Your task to perform on an android device: Go to Yahoo.com Image 0: 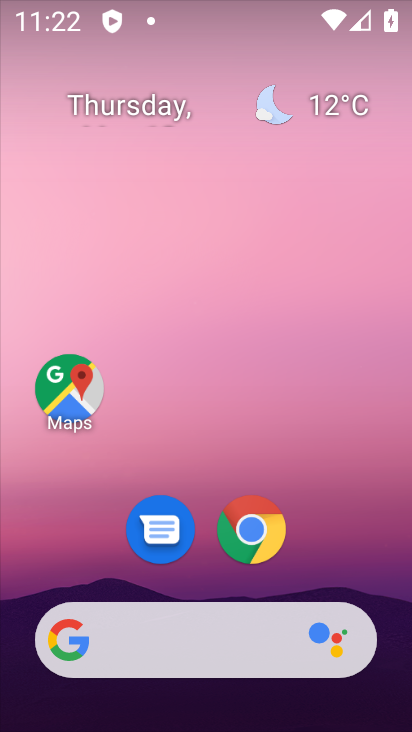
Step 0: drag from (305, 483) to (297, 173)
Your task to perform on an android device: Go to Yahoo.com Image 1: 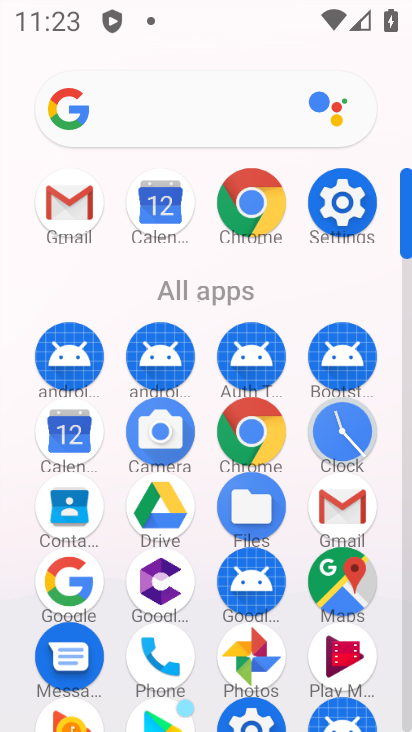
Step 1: drag from (294, 564) to (296, 223)
Your task to perform on an android device: Go to Yahoo.com Image 2: 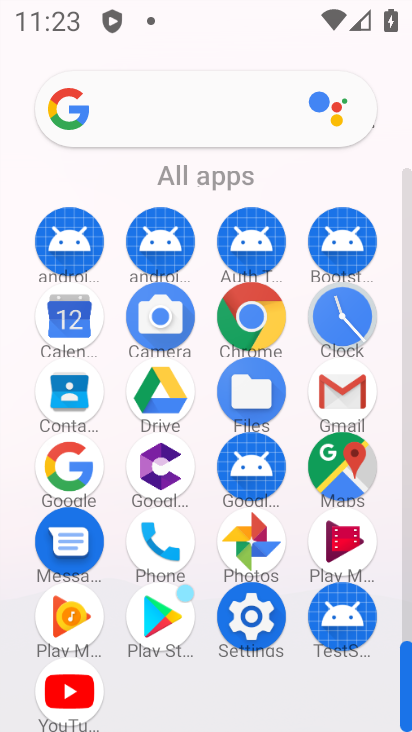
Step 2: click (259, 308)
Your task to perform on an android device: Go to Yahoo.com Image 3: 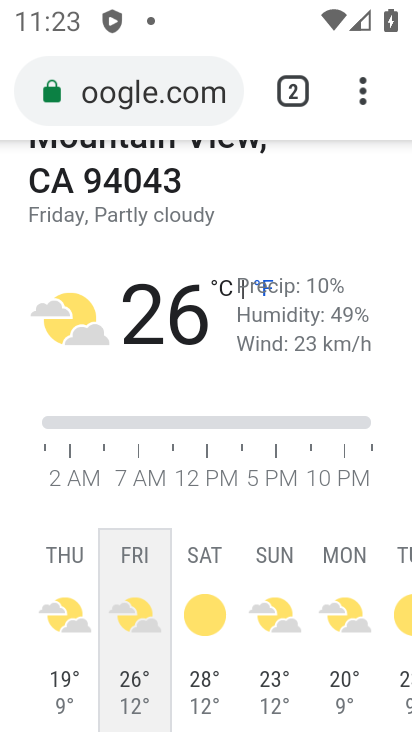
Step 3: click (345, 91)
Your task to perform on an android device: Go to Yahoo.com Image 4: 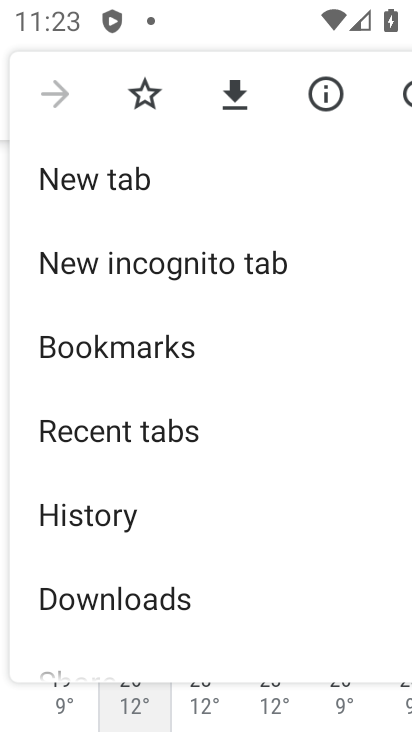
Step 4: click (99, 179)
Your task to perform on an android device: Go to Yahoo.com Image 5: 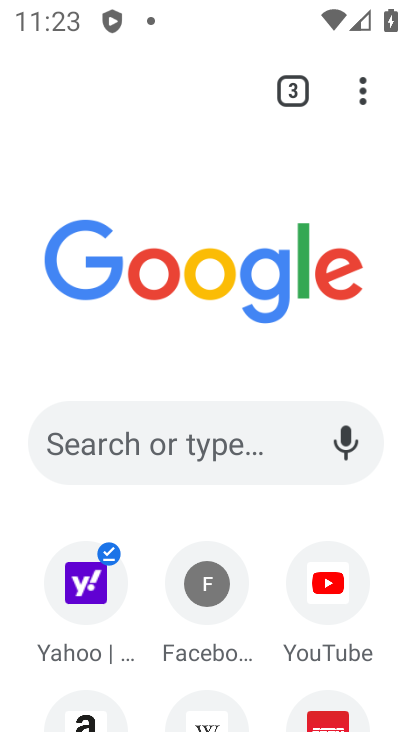
Step 5: click (81, 584)
Your task to perform on an android device: Go to Yahoo.com Image 6: 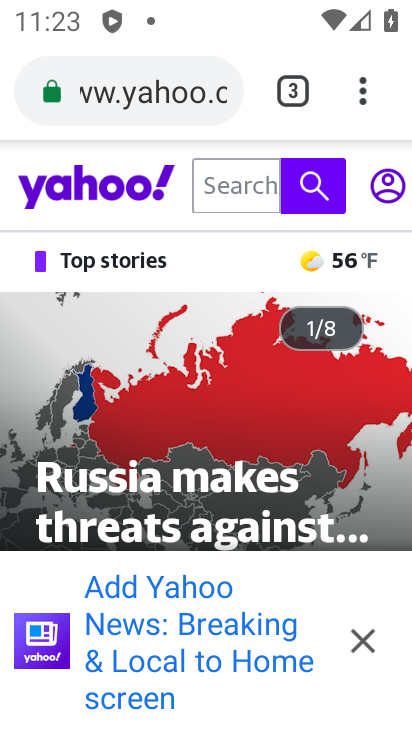
Step 6: task complete